Your task to perform on an android device: turn off location history Image 0: 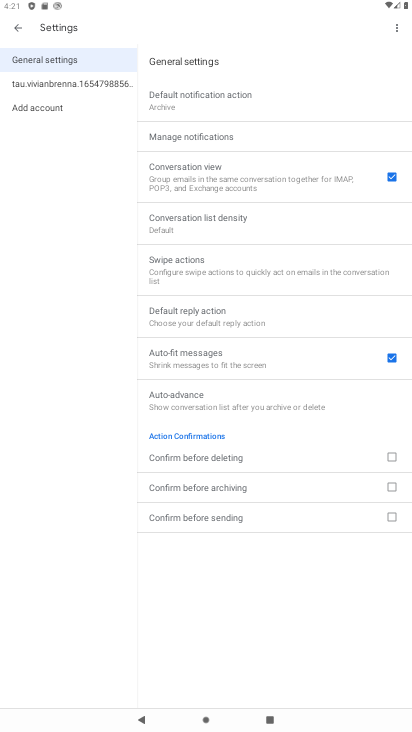
Step 0: press home button
Your task to perform on an android device: turn off location history Image 1: 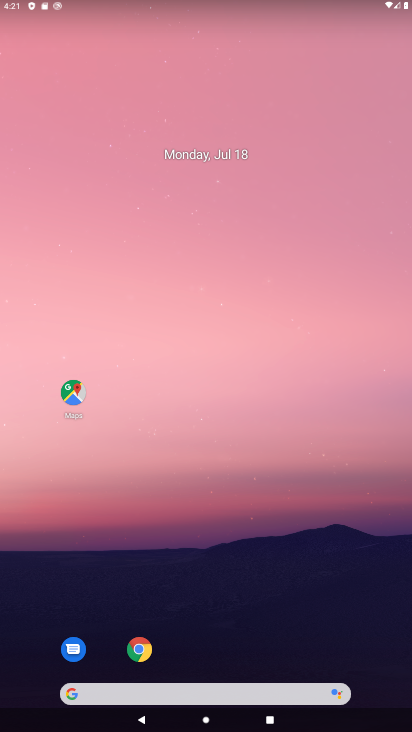
Step 1: drag from (214, 597) to (207, 89)
Your task to perform on an android device: turn off location history Image 2: 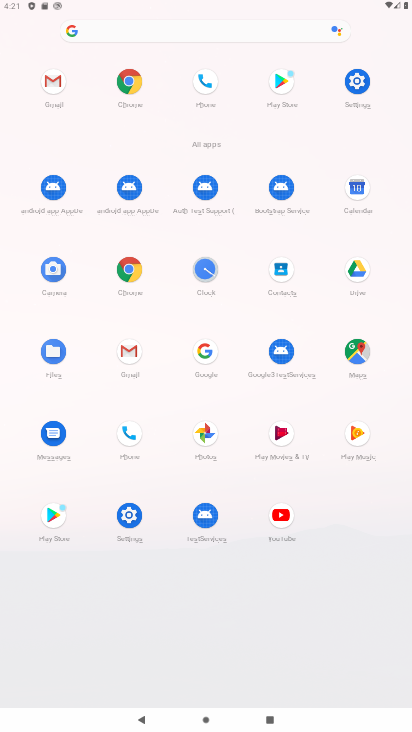
Step 2: click (129, 525)
Your task to perform on an android device: turn off location history Image 3: 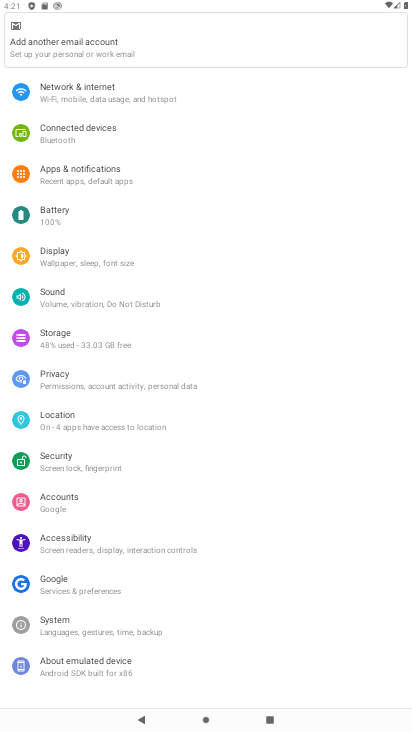
Step 3: click (75, 426)
Your task to perform on an android device: turn off location history Image 4: 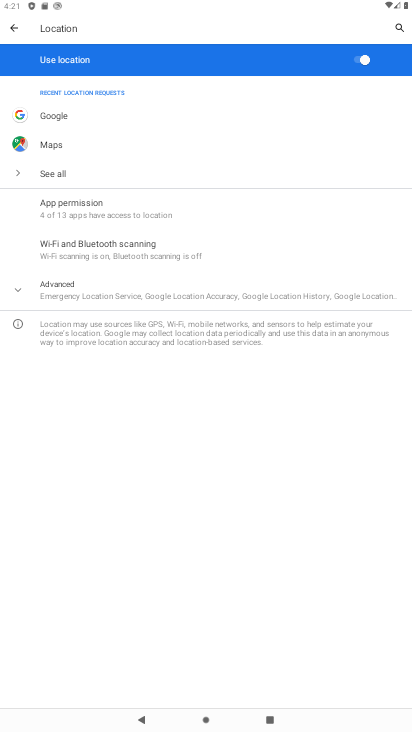
Step 4: click (100, 293)
Your task to perform on an android device: turn off location history Image 5: 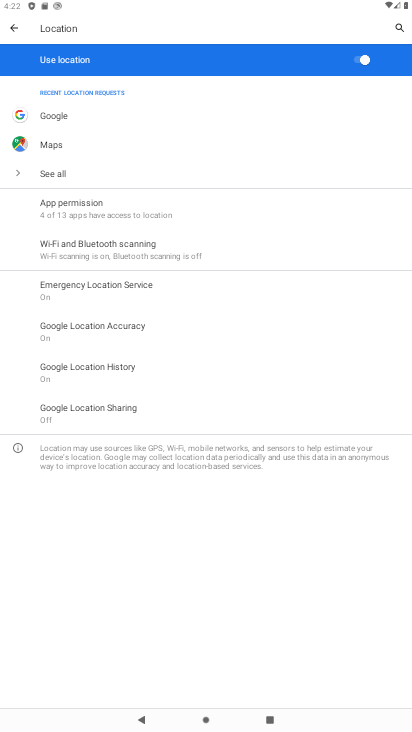
Step 5: click (119, 367)
Your task to perform on an android device: turn off location history Image 6: 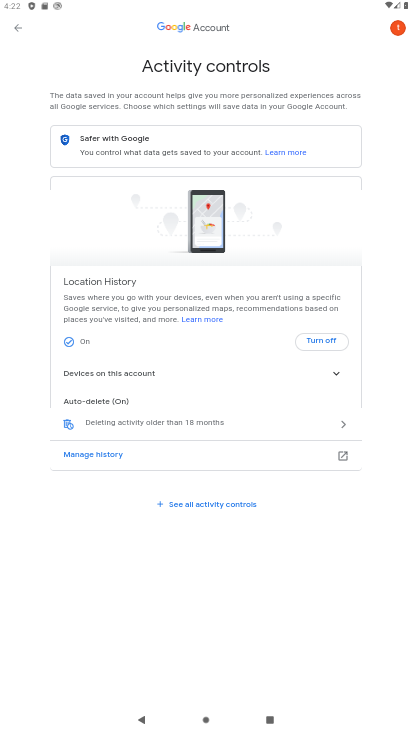
Step 6: click (328, 338)
Your task to perform on an android device: turn off location history Image 7: 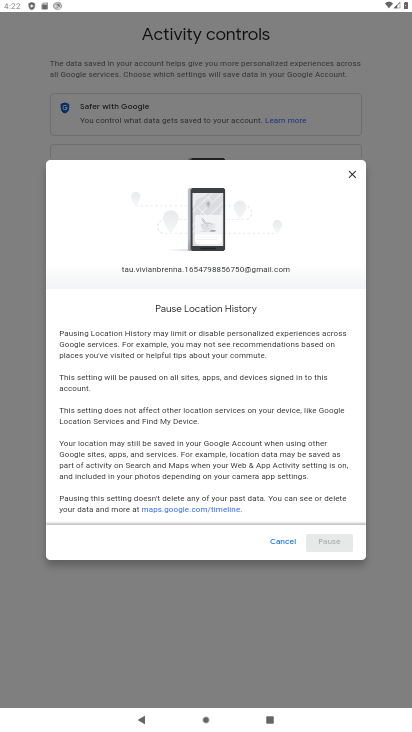
Step 7: drag from (284, 506) to (286, 369)
Your task to perform on an android device: turn off location history Image 8: 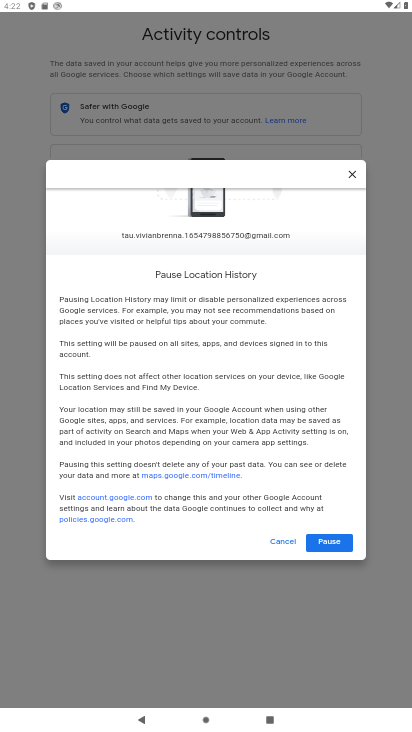
Step 8: click (327, 538)
Your task to perform on an android device: turn off location history Image 9: 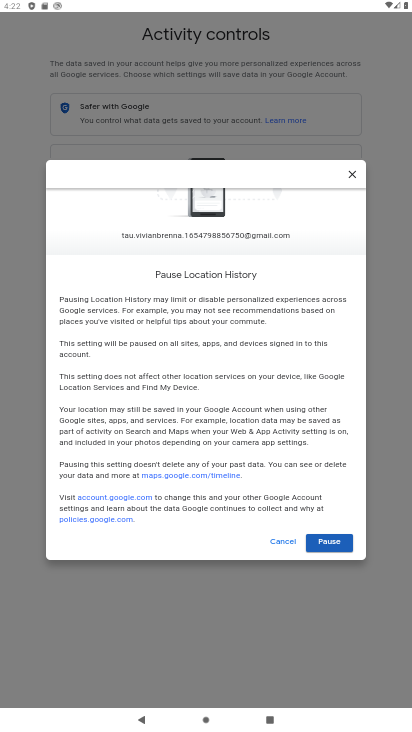
Step 9: click (328, 542)
Your task to perform on an android device: turn off location history Image 10: 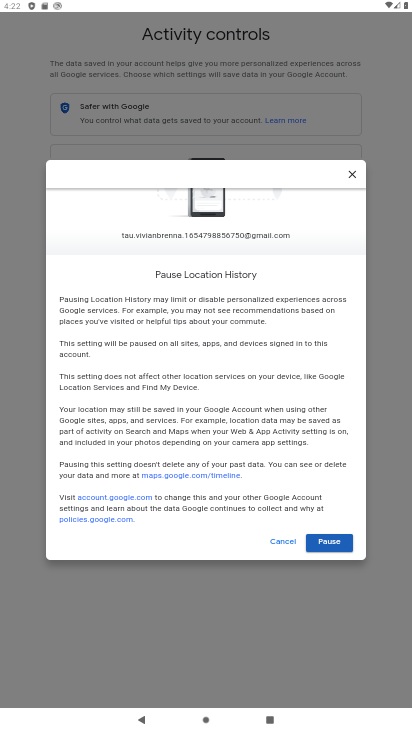
Step 10: click (328, 542)
Your task to perform on an android device: turn off location history Image 11: 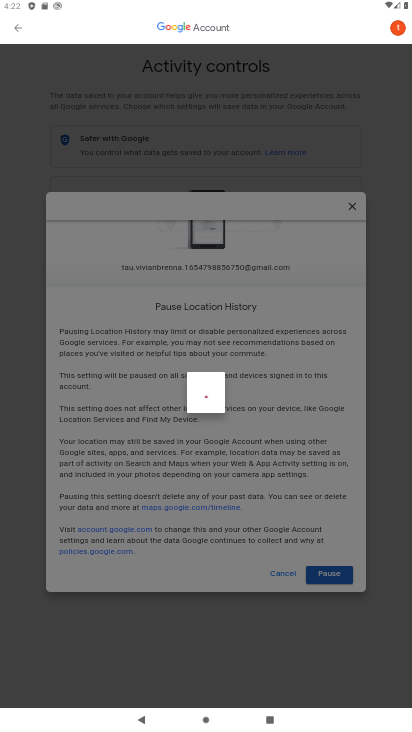
Step 11: click (331, 547)
Your task to perform on an android device: turn off location history Image 12: 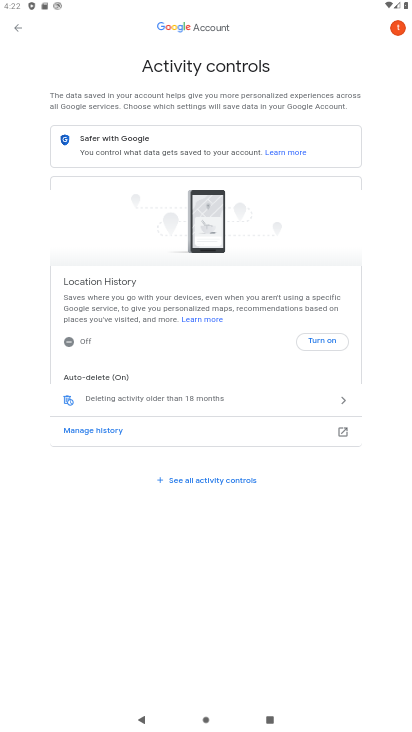
Step 12: task complete